Your task to perform on an android device: change keyboard looks Image 0: 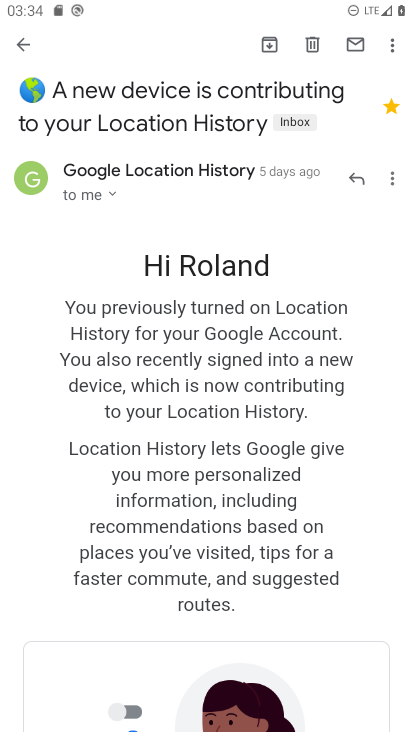
Step 0: press home button
Your task to perform on an android device: change keyboard looks Image 1: 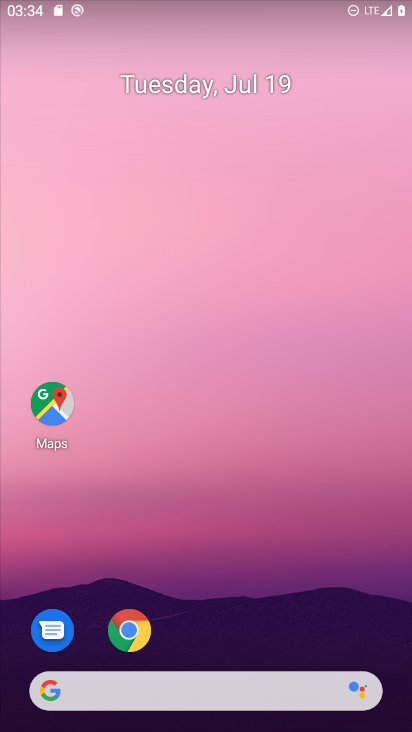
Step 1: drag from (384, 635) to (332, 93)
Your task to perform on an android device: change keyboard looks Image 2: 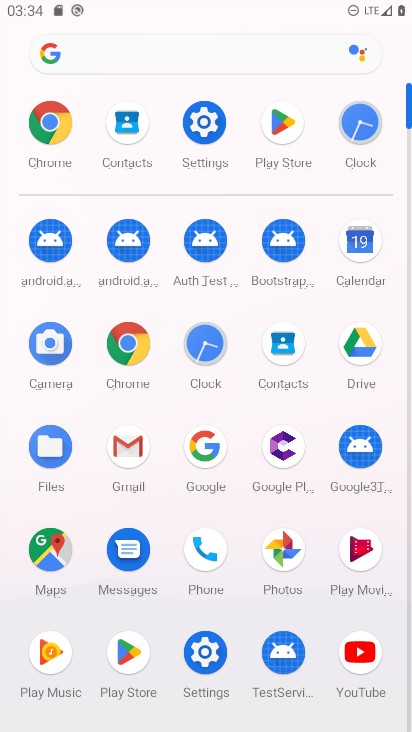
Step 2: click (204, 655)
Your task to perform on an android device: change keyboard looks Image 3: 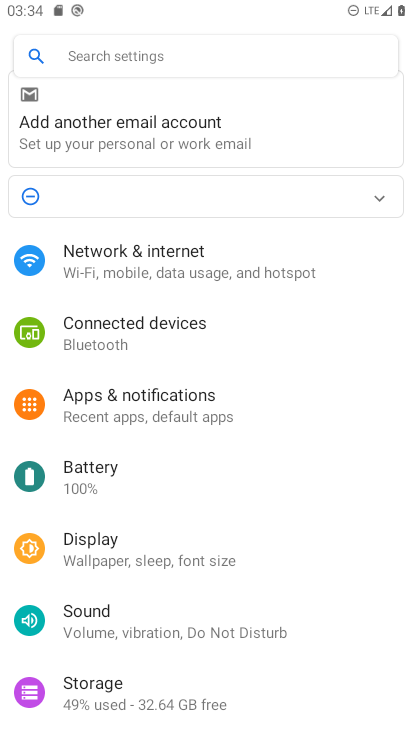
Step 3: drag from (352, 654) to (326, 220)
Your task to perform on an android device: change keyboard looks Image 4: 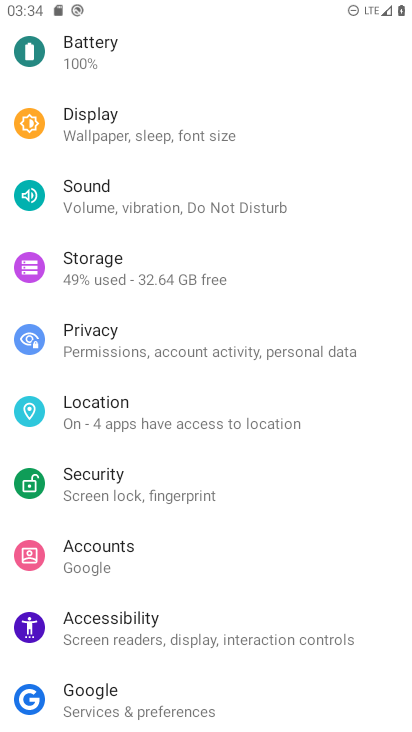
Step 4: drag from (299, 635) to (297, 178)
Your task to perform on an android device: change keyboard looks Image 5: 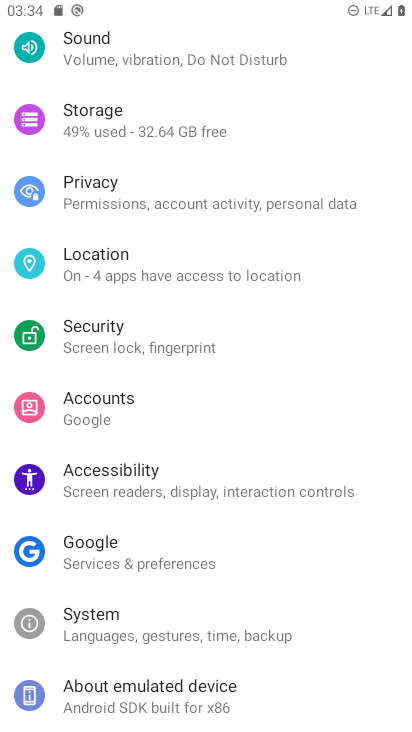
Step 5: click (94, 629)
Your task to perform on an android device: change keyboard looks Image 6: 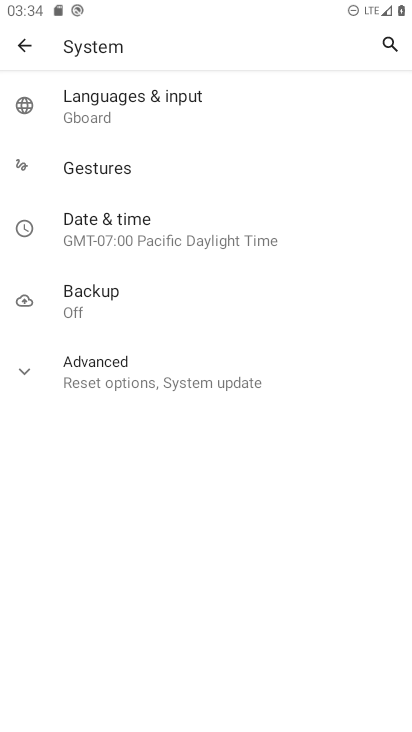
Step 6: click (90, 103)
Your task to perform on an android device: change keyboard looks Image 7: 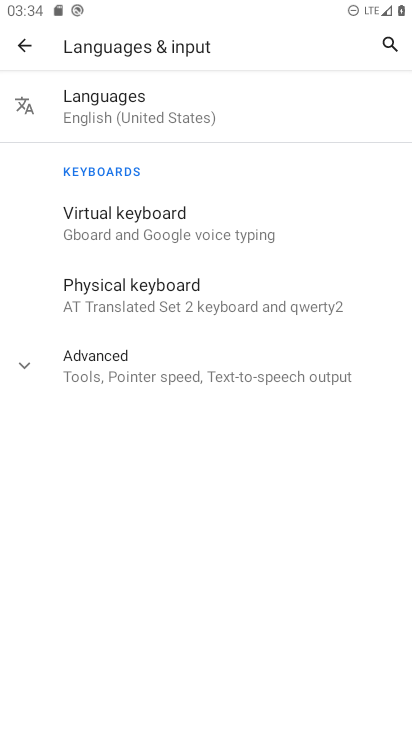
Step 7: click (107, 282)
Your task to perform on an android device: change keyboard looks Image 8: 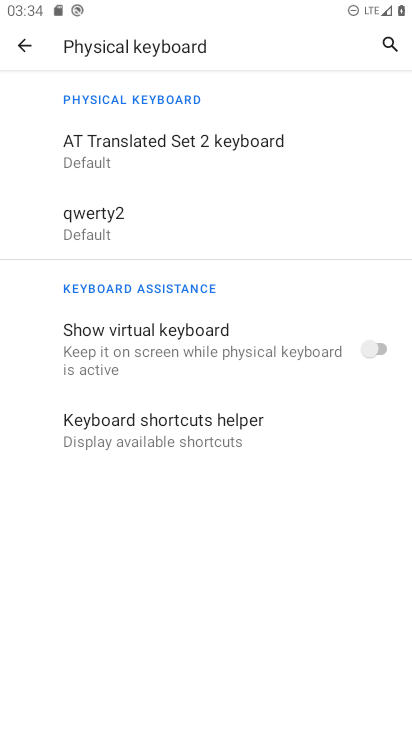
Step 8: click (95, 232)
Your task to perform on an android device: change keyboard looks Image 9: 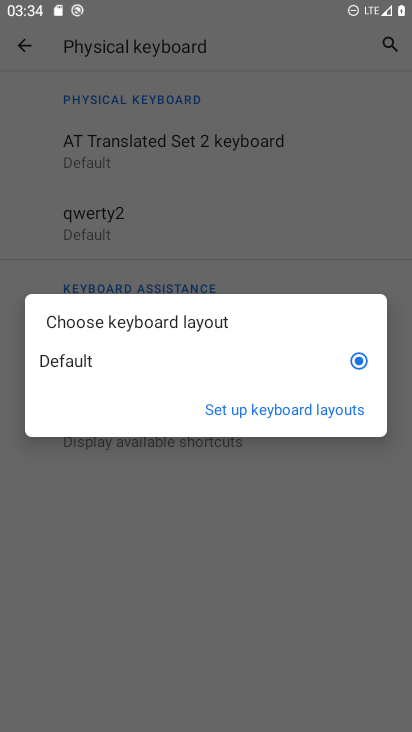
Step 9: click (282, 408)
Your task to perform on an android device: change keyboard looks Image 10: 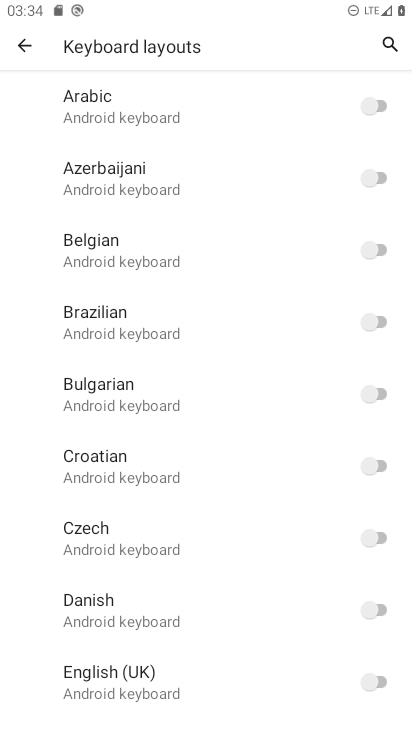
Step 10: click (379, 607)
Your task to perform on an android device: change keyboard looks Image 11: 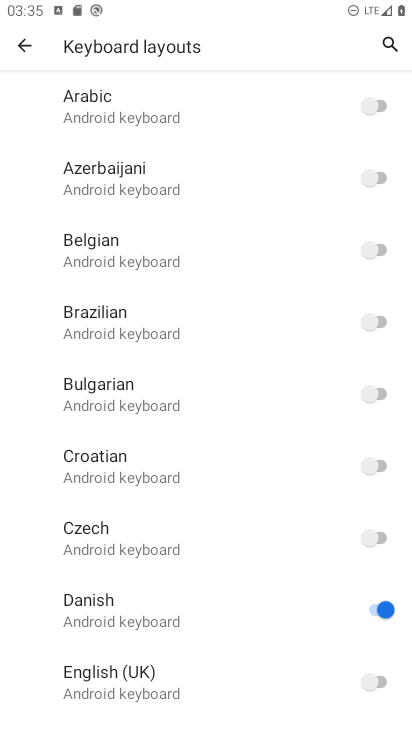
Step 11: task complete